Your task to perform on an android device: check data usage Image 0: 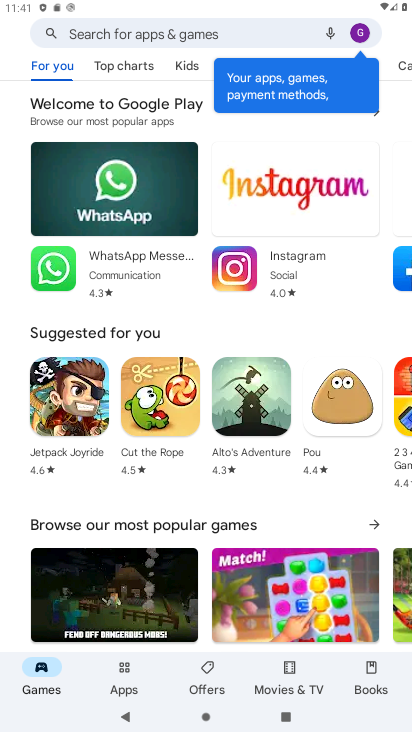
Step 0: press home button
Your task to perform on an android device: check data usage Image 1: 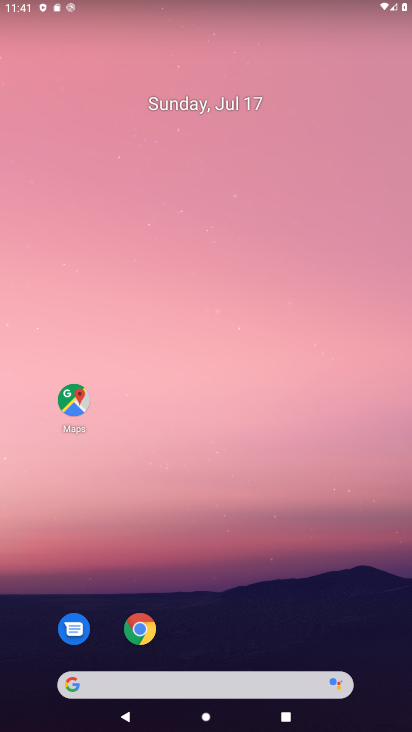
Step 1: drag from (211, 652) to (205, 81)
Your task to perform on an android device: check data usage Image 2: 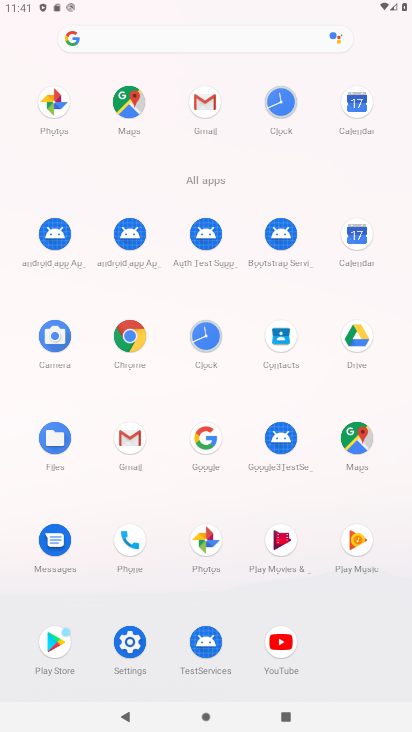
Step 2: click (130, 639)
Your task to perform on an android device: check data usage Image 3: 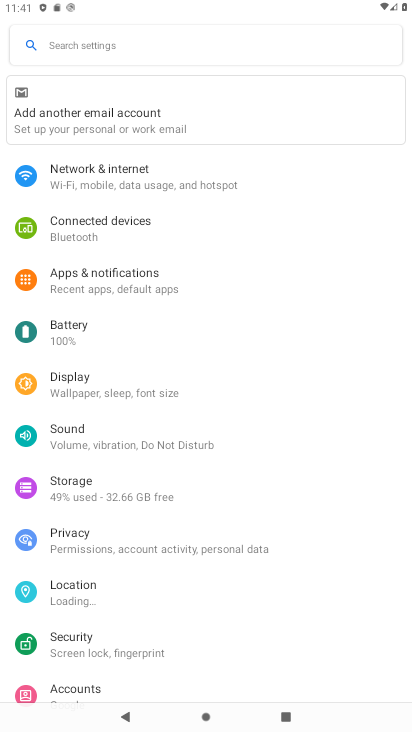
Step 3: click (150, 173)
Your task to perform on an android device: check data usage Image 4: 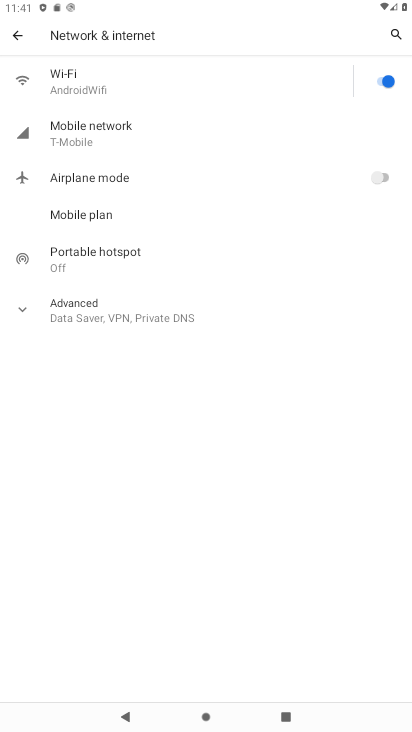
Step 4: click (110, 127)
Your task to perform on an android device: check data usage Image 5: 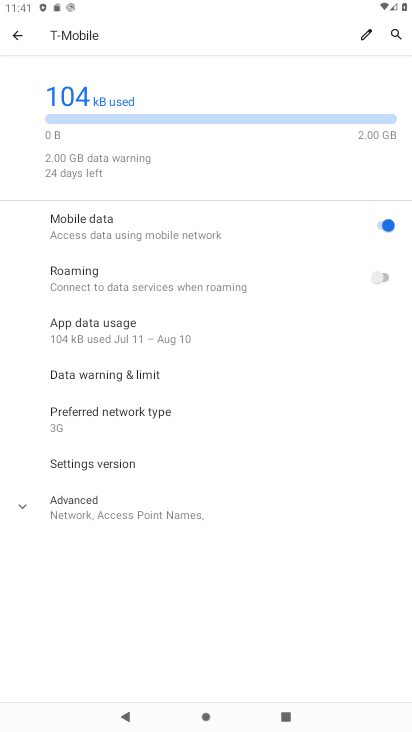
Step 5: click (132, 321)
Your task to perform on an android device: check data usage Image 6: 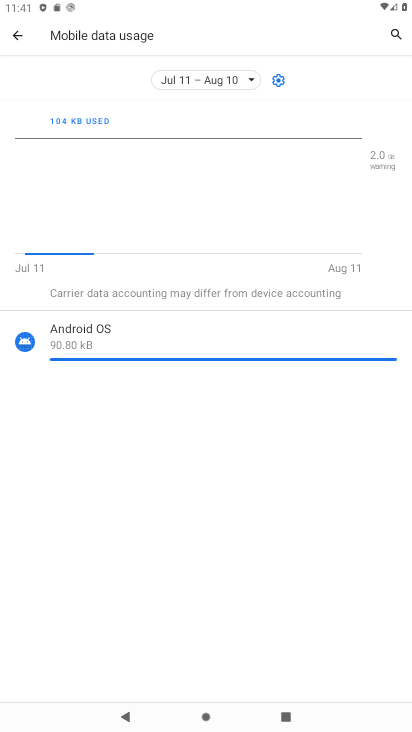
Step 6: task complete